Your task to perform on an android device: turn off translation in the chrome app Image 0: 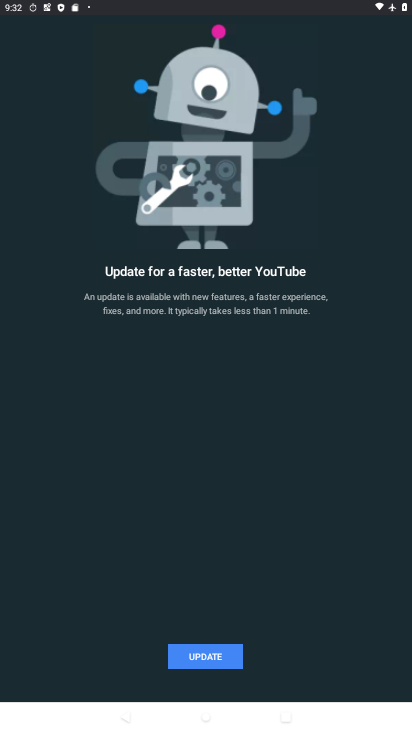
Step 0: press home button
Your task to perform on an android device: turn off translation in the chrome app Image 1: 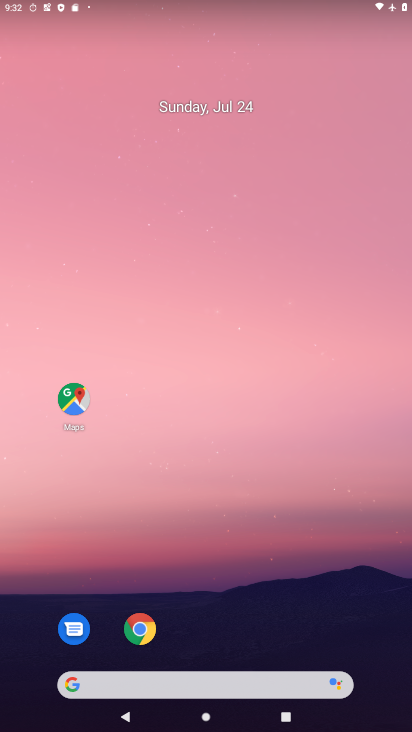
Step 1: drag from (242, 685) to (272, 68)
Your task to perform on an android device: turn off translation in the chrome app Image 2: 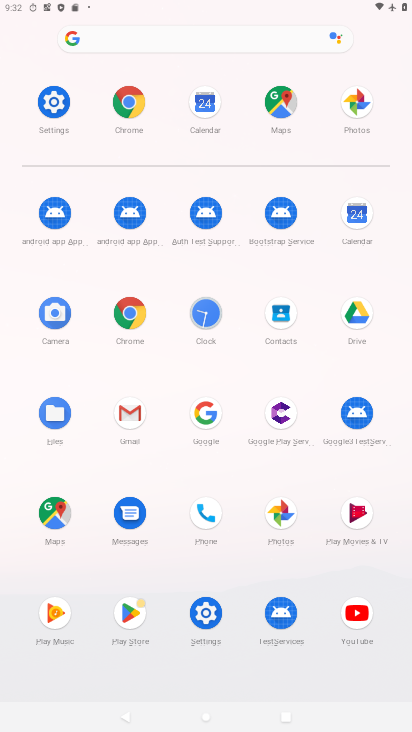
Step 2: click (128, 100)
Your task to perform on an android device: turn off translation in the chrome app Image 3: 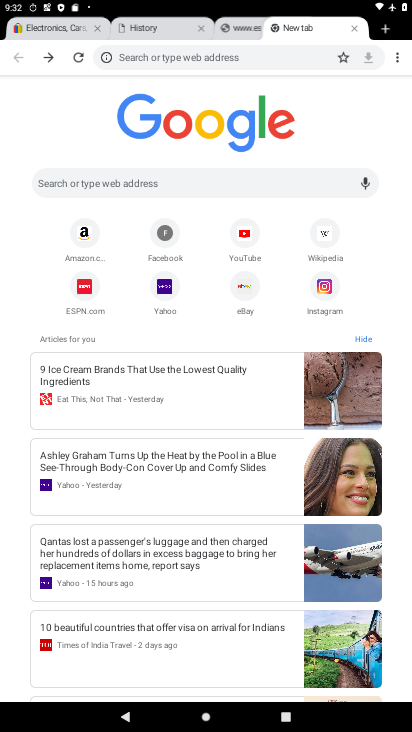
Step 3: click (399, 62)
Your task to perform on an android device: turn off translation in the chrome app Image 4: 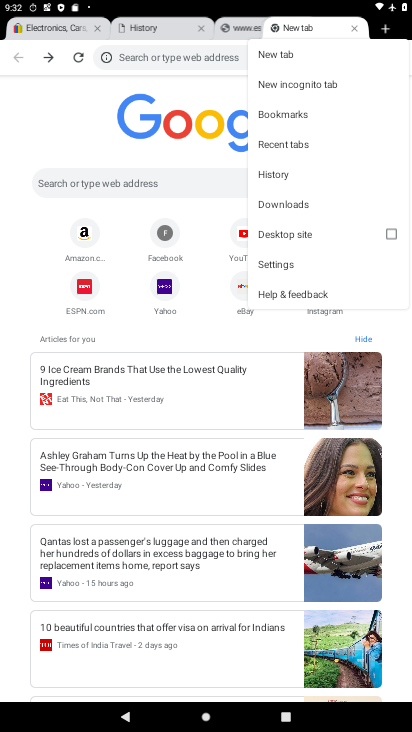
Step 4: click (277, 263)
Your task to perform on an android device: turn off translation in the chrome app Image 5: 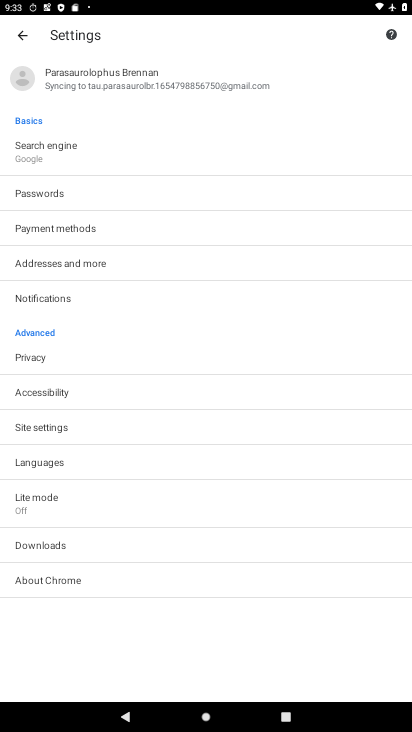
Step 5: click (22, 36)
Your task to perform on an android device: turn off translation in the chrome app Image 6: 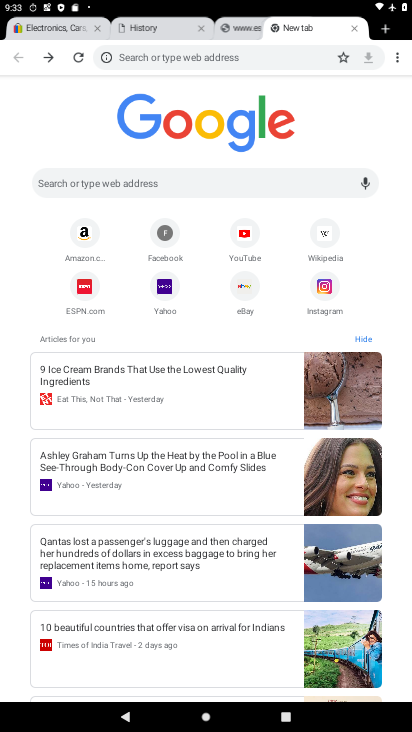
Step 6: click (400, 52)
Your task to perform on an android device: turn off translation in the chrome app Image 7: 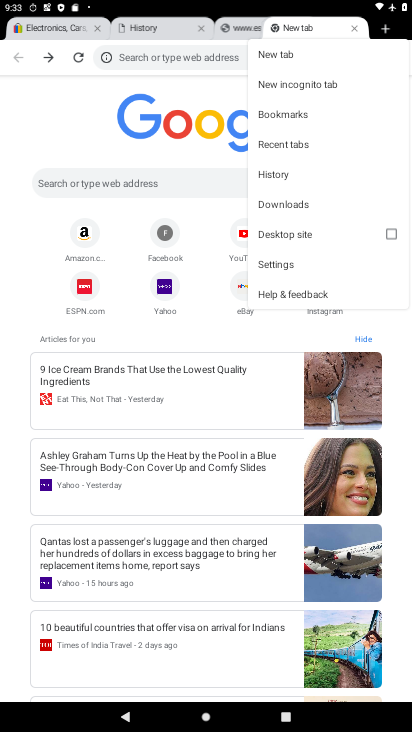
Step 7: task complete